Your task to perform on an android device: Go to eBay Image 0: 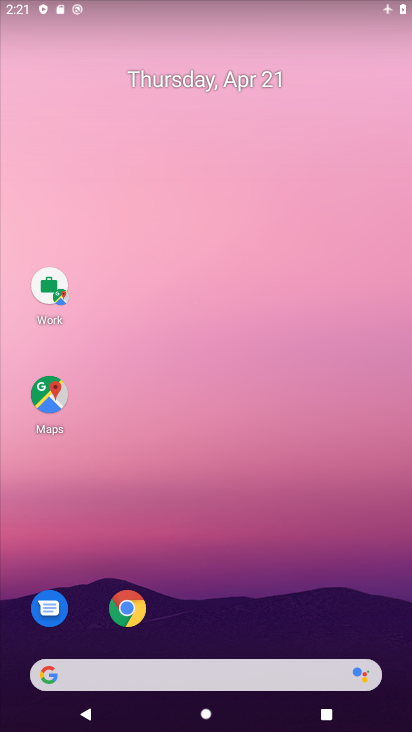
Step 0: click (115, 610)
Your task to perform on an android device: Go to eBay Image 1: 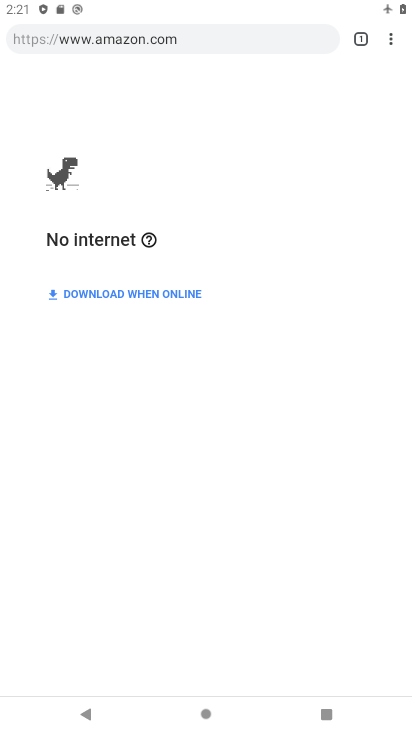
Step 1: click (387, 10)
Your task to perform on an android device: Go to eBay Image 2: 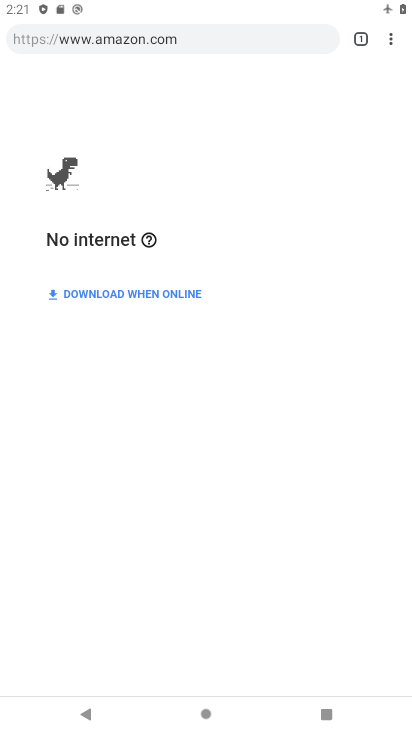
Step 2: click (388, 12)
Your task to perform on an android device: Go to eBay Image 3: 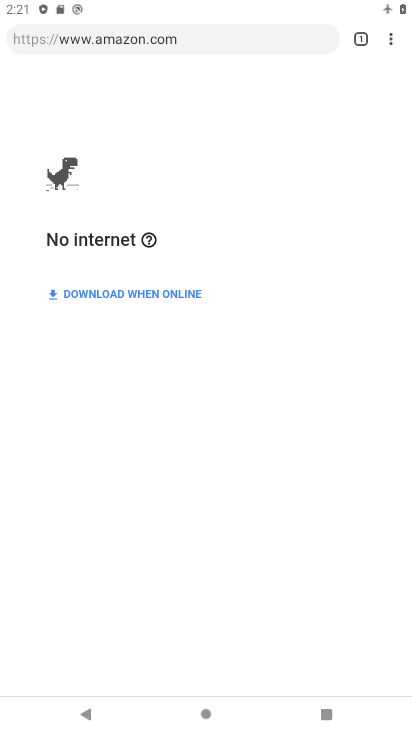
Step 3: drag from (349, 50) to (393, 366)
Your task to perform on an android device: Go to eBay Image 4: 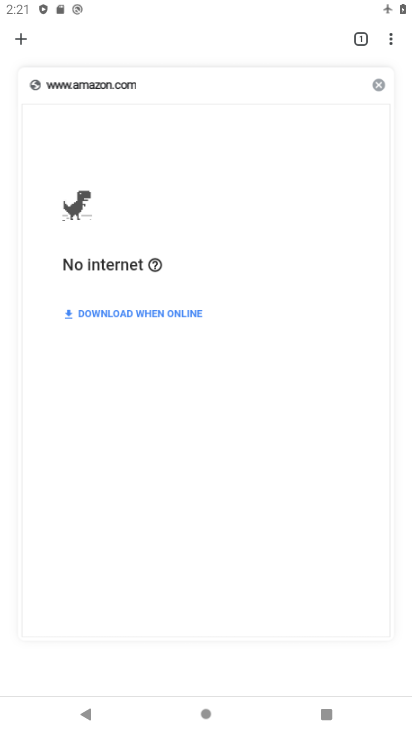
Step 4: click (194, 97)
Your task to perform on an android device: Go to eBay Image 5: 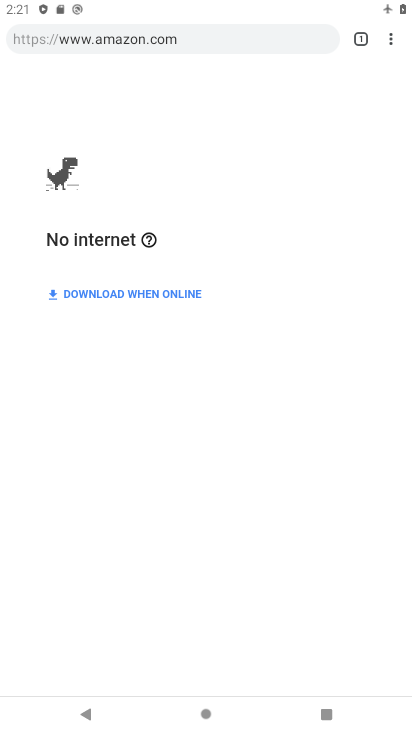
Step 5: click (389, 8)
Your task to perform on an android device: Go to eBay Image 6: 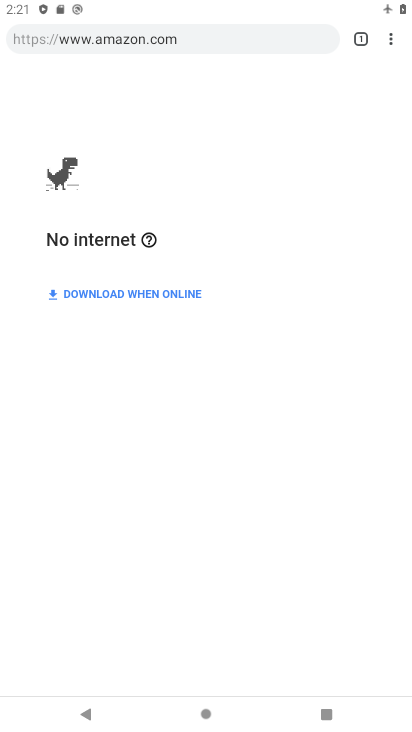
Step 6: click (387, 4)
Your task to perform on an android device: Go to eBay Image 7: 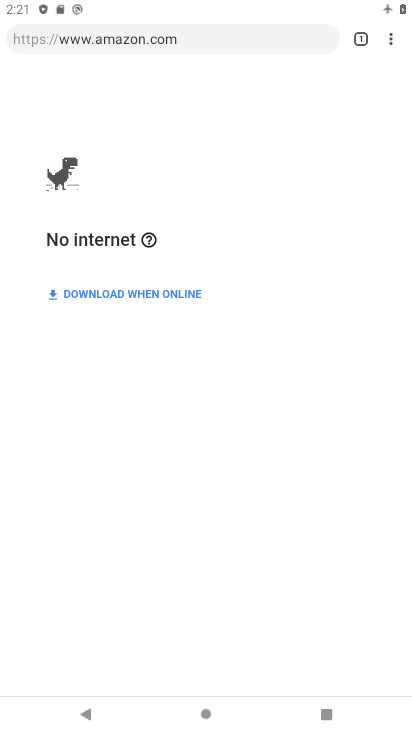
Step 7: click (389, 12)
Your task to perform on an android device: Go to eBay Image 8: 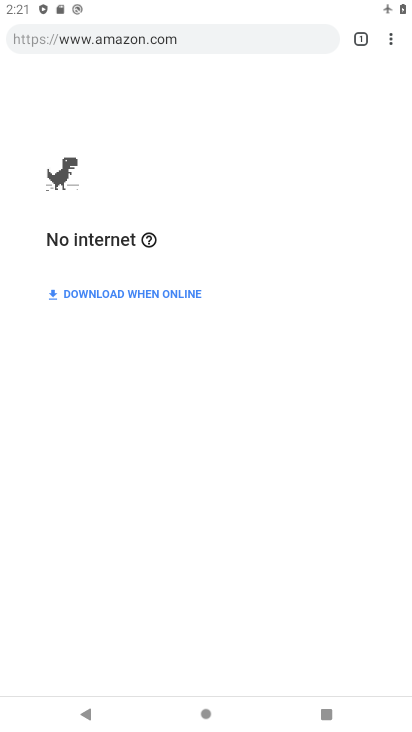
Step 8: drag from (391, 13) to (392, 136)
Your task to perform on an android device: Go to eBay Image 9: 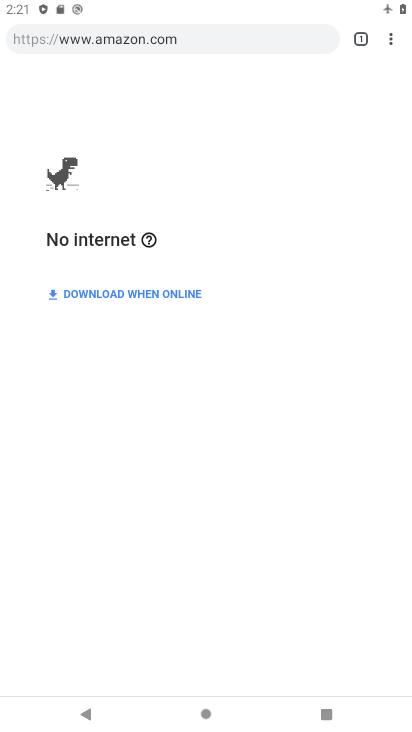
Step 9: drag from (384, 10) to (410, 176)
Your task to perform on an android device: Go to eBay Image 10: 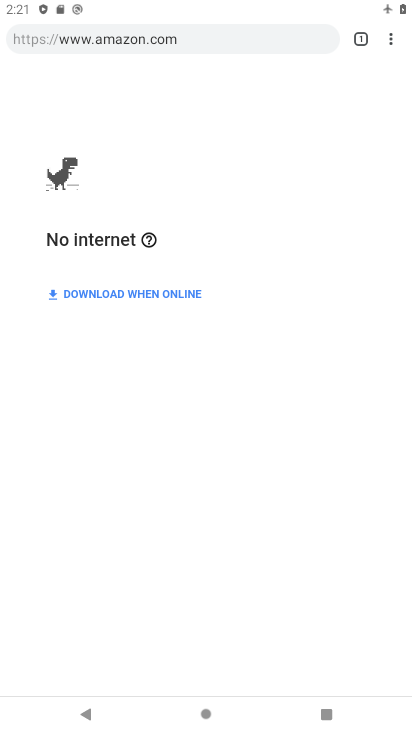
Step 10: drag from (387, 7) to (364, 206)
Your task to perform on an android device: Go to eBay Image 11: 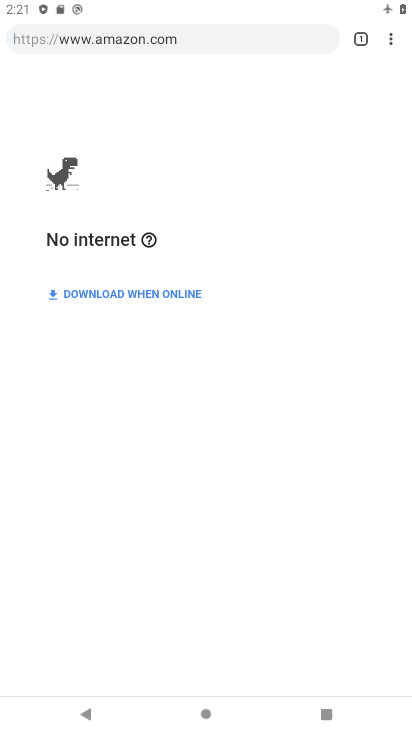
Step 11: click (384, 9)
Your task to perform on an android device: Go to eBay Image 12: 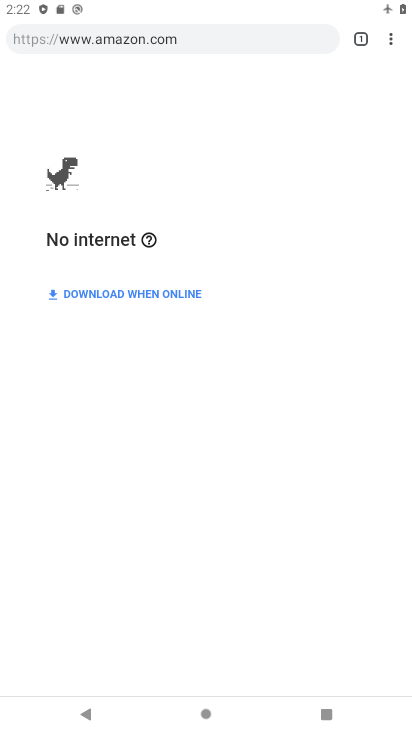
Step 12: click (385, 11)
Your task to perform on an android device: Go to eBay Image 13: 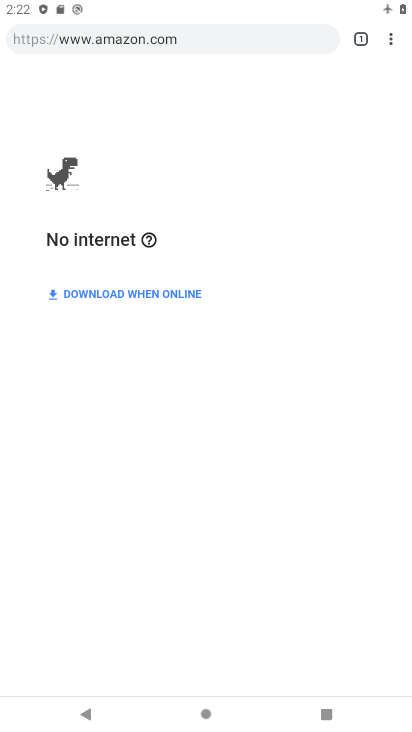
Step 13: click (388, 15)
Your task to perform on an android device: Go to eBay Image 14: 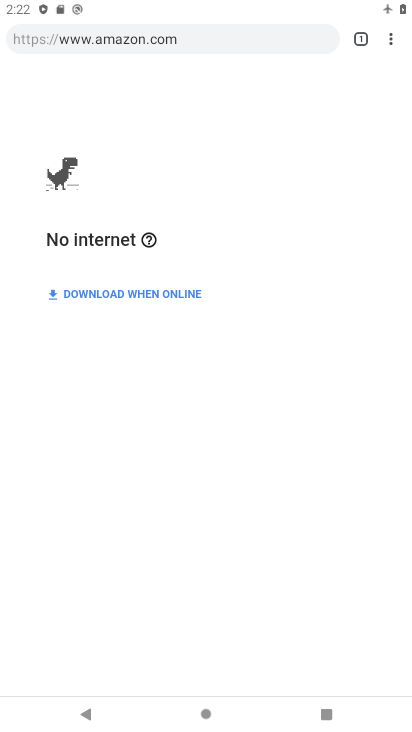
Step 14: click (384, 85)
Your task to perform on an android device: Go to eBay Image 15: 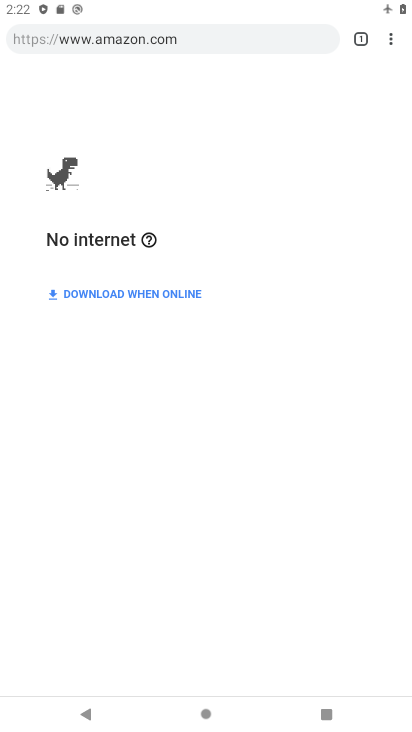
Step 15: click (394, 7)
Your task to perform on an android device: Go to eBay Image 16: 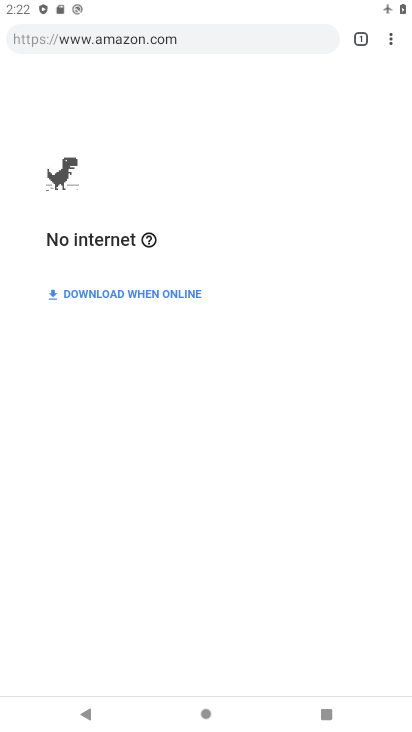
Step 16: click (390, 84)
Your task to perform on an android device: Go to eBay Image 17: 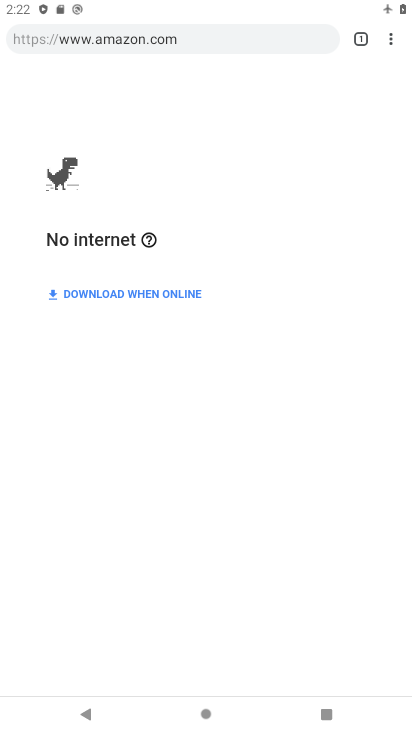
Step 17: click (384, 10)
Your task to perform on an android device: Go to eBay Image 18: 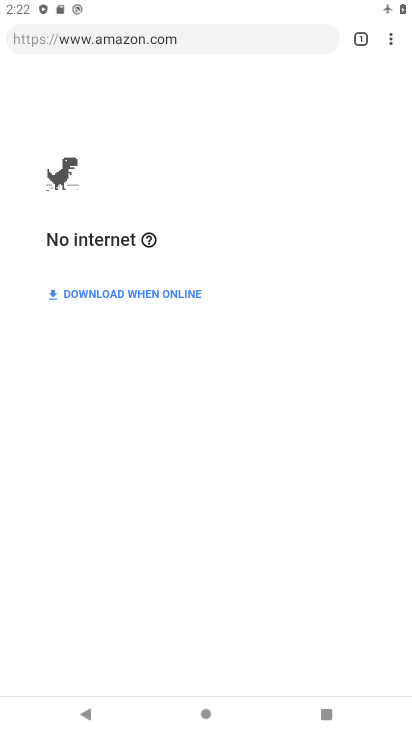
Step 18: click (385, 8)
Your task to perform on an android device: Go to eBay Image 19: 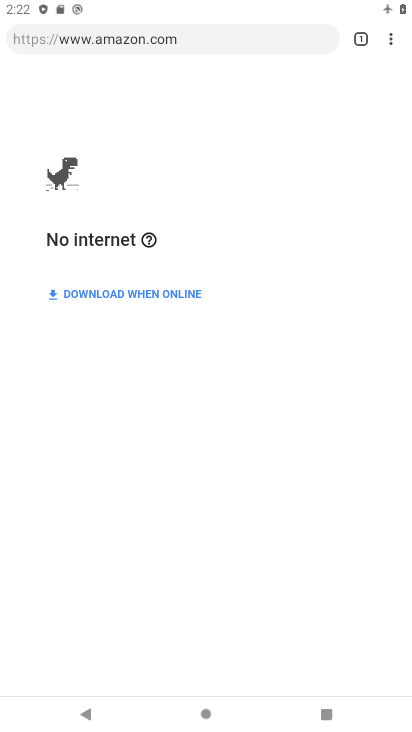
Step 19: click (390, 11)
Your task to perform on an android device: Go to eBay Image 20: 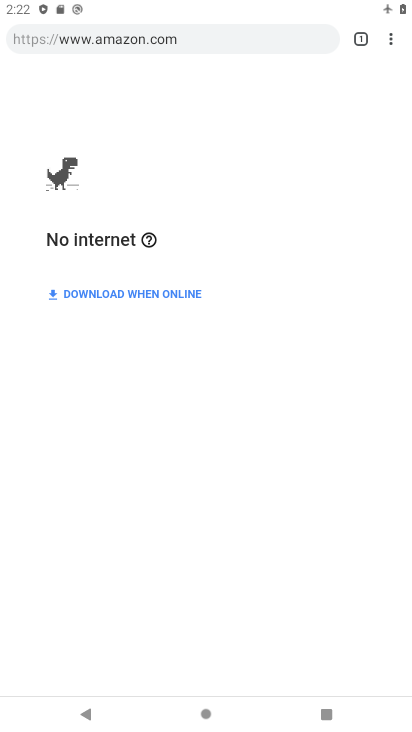
Step 20: click (396, 94)
Your task to perform on an android device: Go to eBay Image 21: 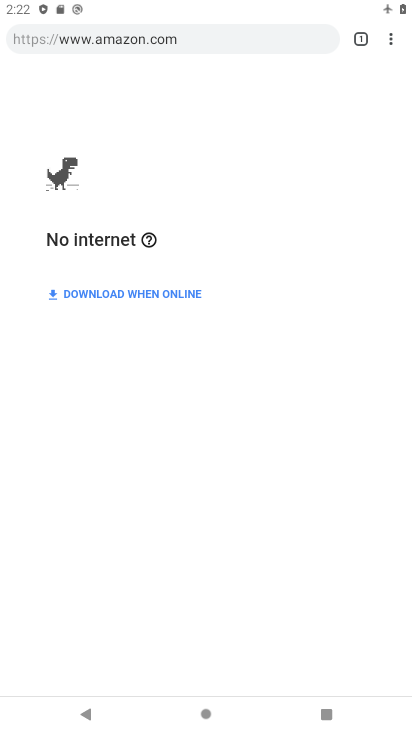
Step 21: press home button
Your task to perform on an android device: Go to eBay Image 22: 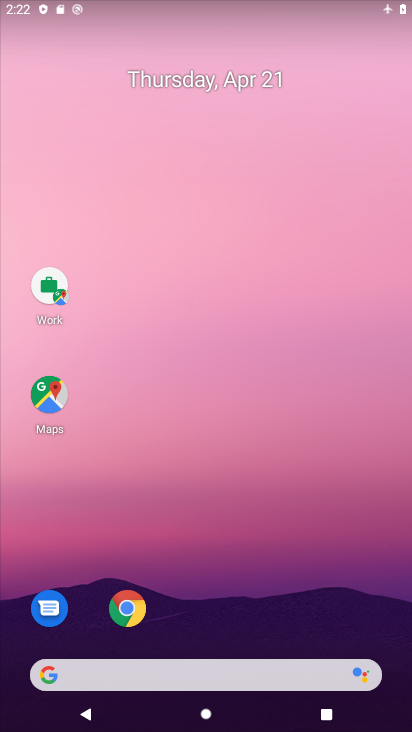
Step 22: drag from (294, 578) to (260, 214)
Your task to perform on an android device: Go to eBay Image 23: 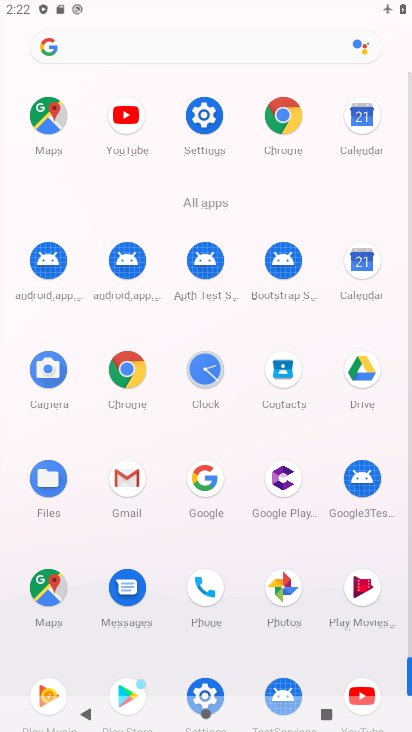
Step 23: click (206, 679)
Your task to perform on an android device: Go to eBay Image 24: 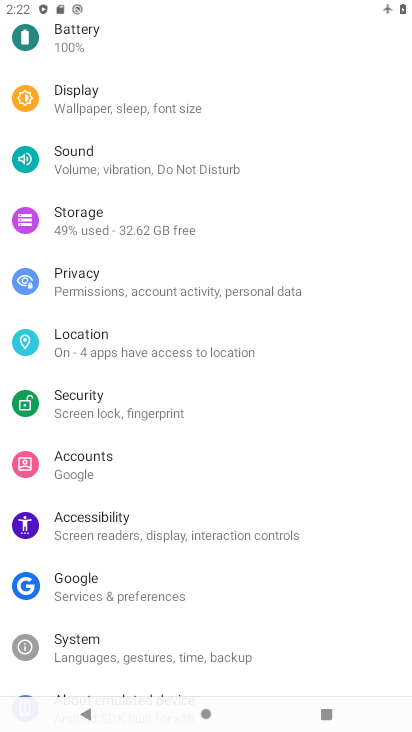
Step 24: drag from (104, 153) to (35, 509)
Your task to perform on an android device: Go to eBay Image 25: 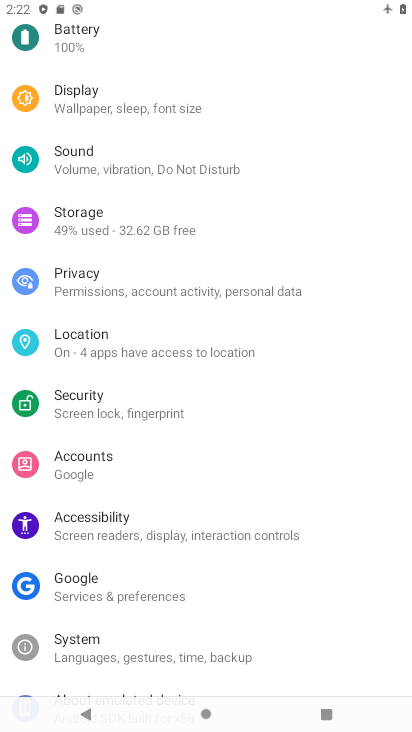
Step 25: drag from (185, 222) to (195, 600)
Your task to perform on an android device: Go to eBay Image 26: 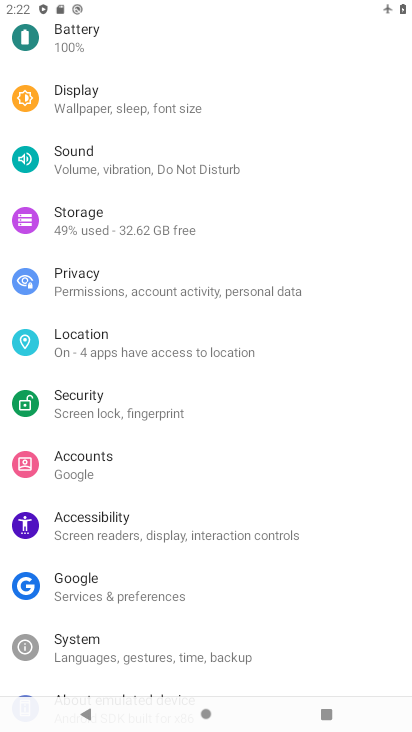
Step 26: drag from (194, 111) to (234, 480)
Your task to perform on an android device: Go to eBay Image 27: 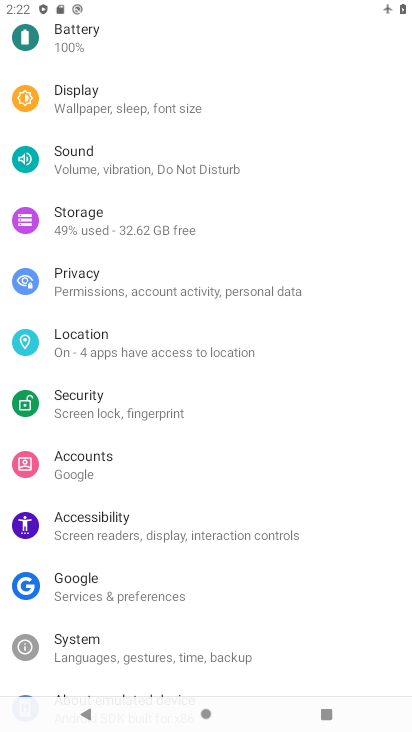
Step 27: drag from (248, 223) to (233, 706)
Your task to perform on an android device: Go to eBay Image 28: 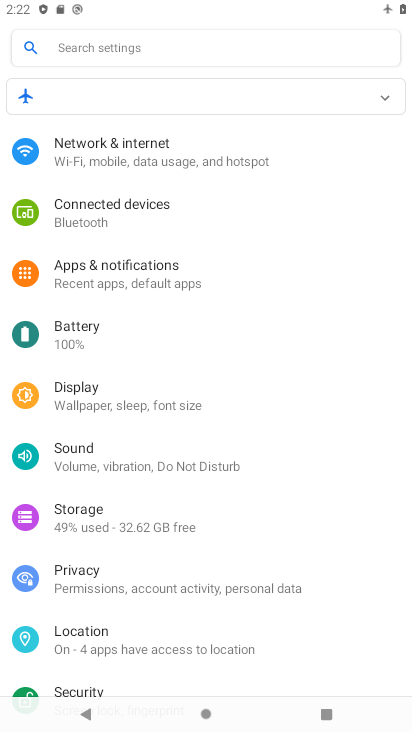
Step 28: click (392, 93)
Your task to perform on an android device: Go to eBay Image 29: 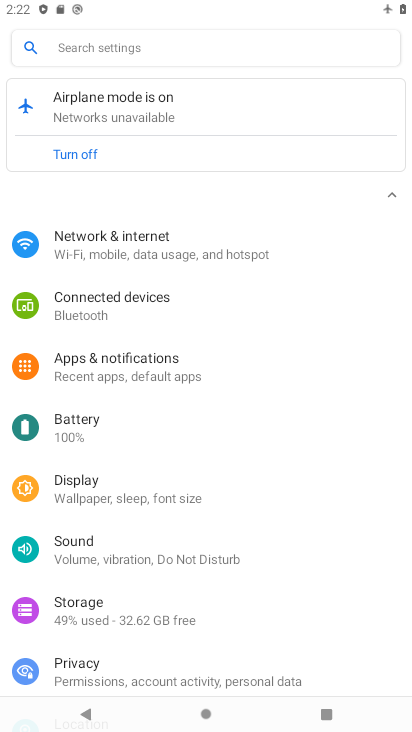
Step 29: click (67, 154)
Your task to perform on an android device: Go to eBay Image 30: 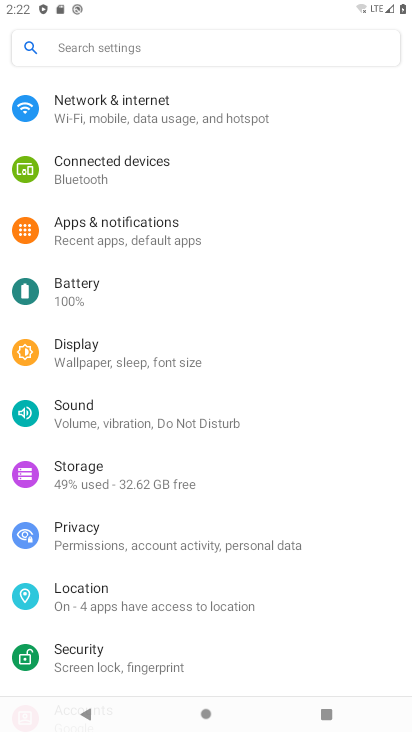
Step 30: press home button
Your task to perform on an android device: Go to eBay Image 31: 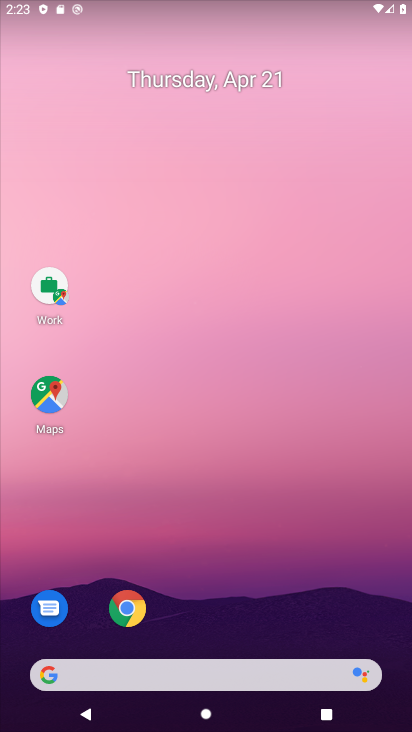
Step 31: click (131, 603)
Your task to perform on an android device: Go to eBay Image 32: 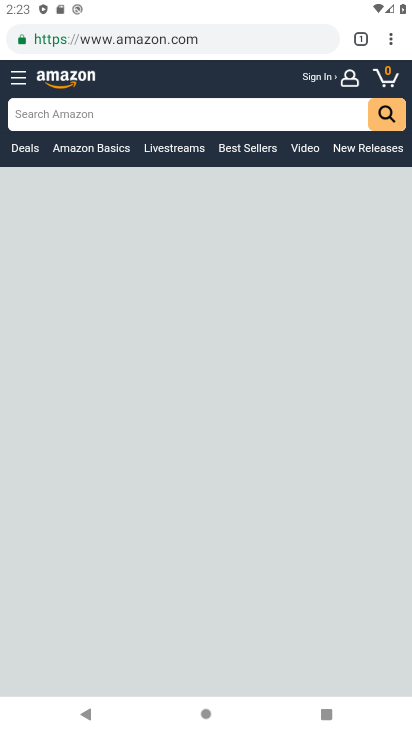
Step 32: click (366, 41)
Your task to perform on an android device: Go to eBay Image 33: 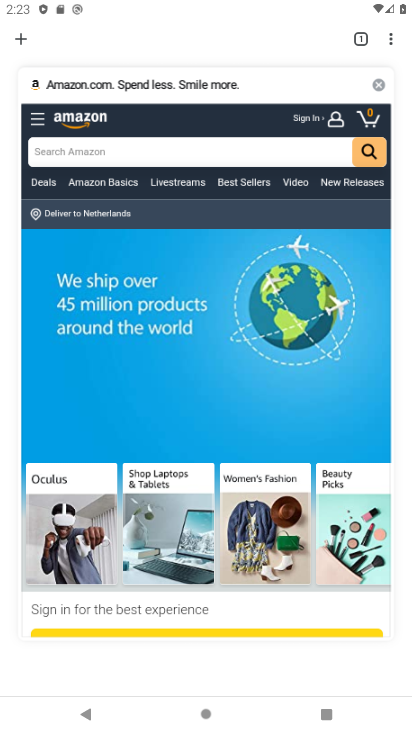
Step 33: click (374, 88)
Your task to perform on an android device: Go to eBay Image 34: 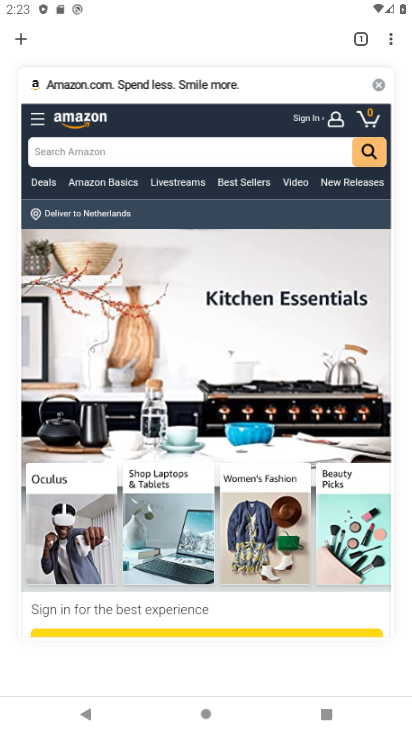
Step 34: click (381, 87)
Your task to perform on an android device: Go to eBay Image 35: 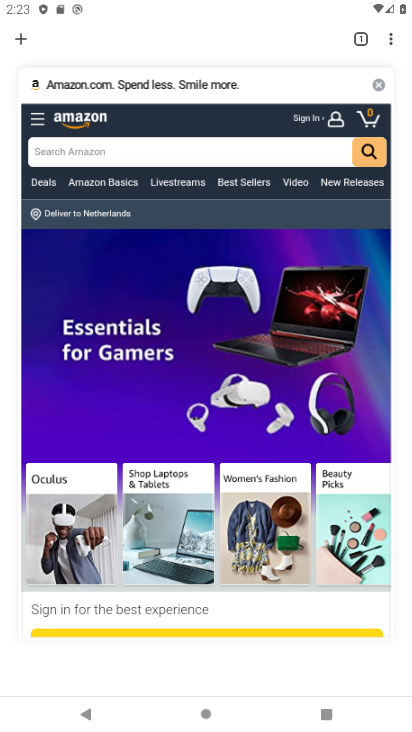
Step 35: click (380, 85)
Your task to perform on an android device: Go to eBay Image 36: 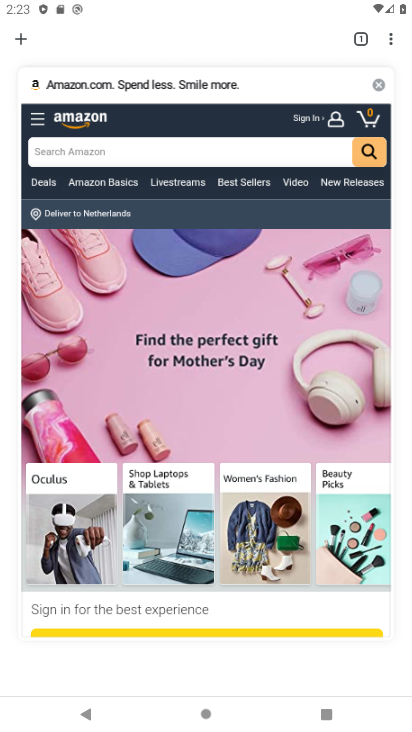
Step 36: click (379, 84)
Your task to perform on an android device: Go to eBay Image 37: 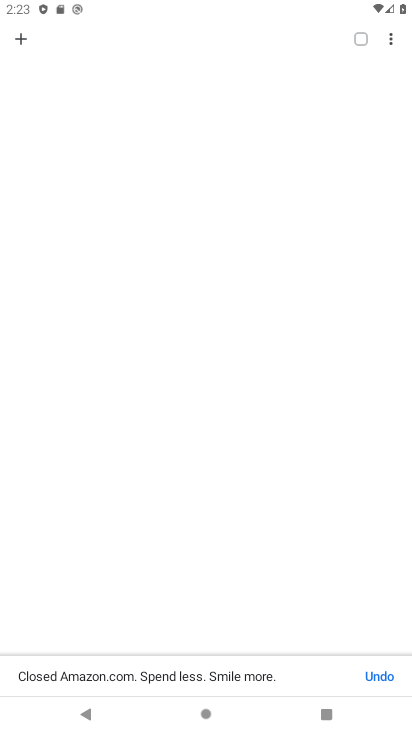
Step 37: click (24, 44)
Your task to perform on an android device: Go to eBay Image 38: 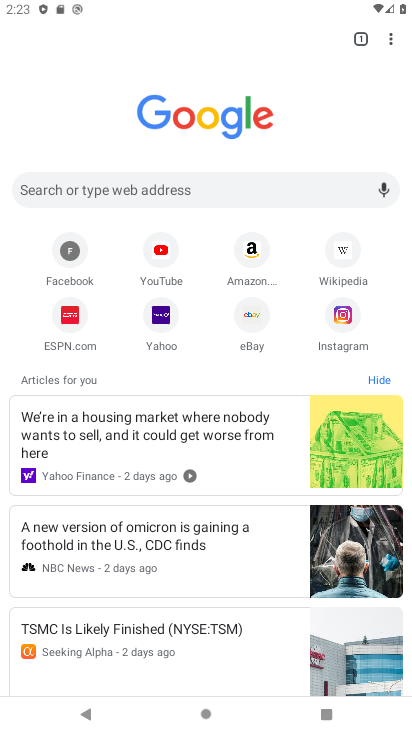
Step 38: click (258, 335)
Your task to perform on an android device: Go to eBay Image 39: 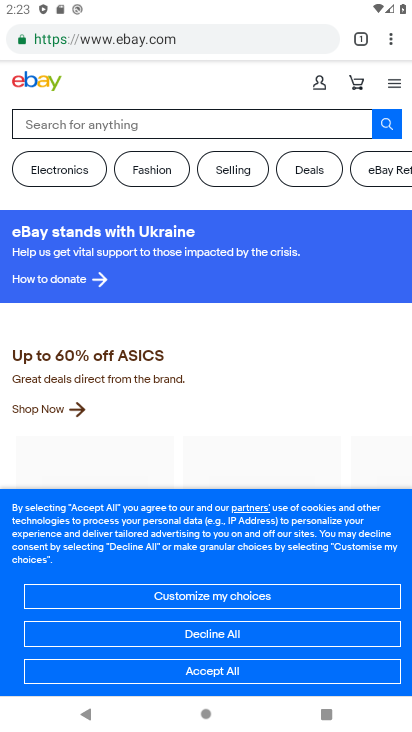
Step 39: task complete